Your task to perform on an android device: Open settings Image 0: 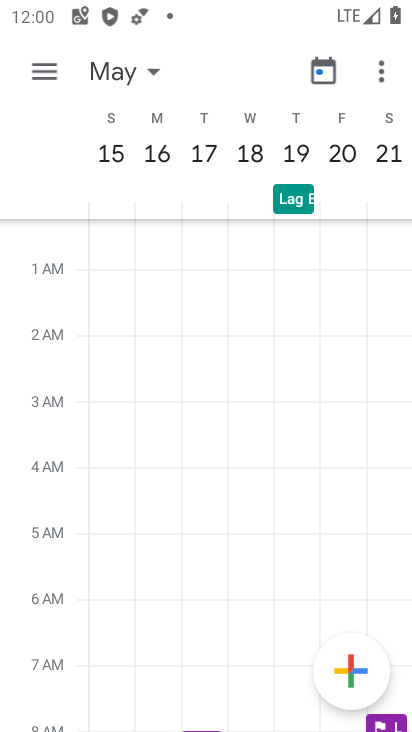
Step 0: press back button
Your task to perform on an android device: Open settings Image 1: 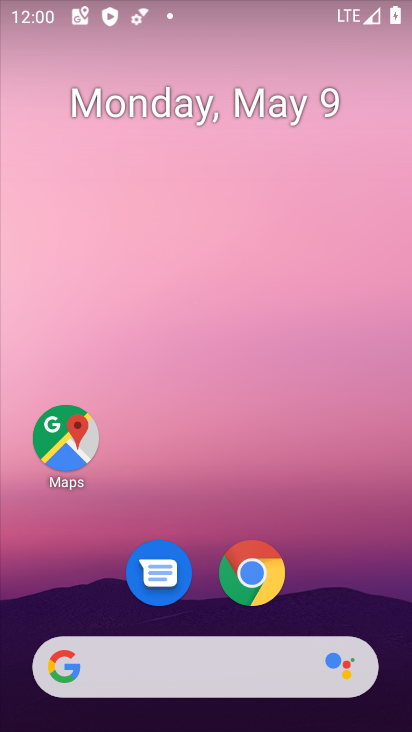
Step 1: drag from (304, 574) to (218, 0)
Your task to perform on an android device: Open settings Image 2: 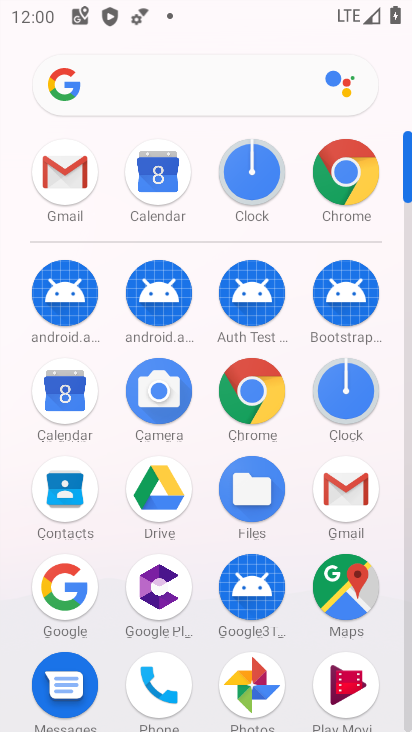
Step 2: drag from (11, 558) to (18, 229)
Your task to perform on an android device: Open settings Image 3: 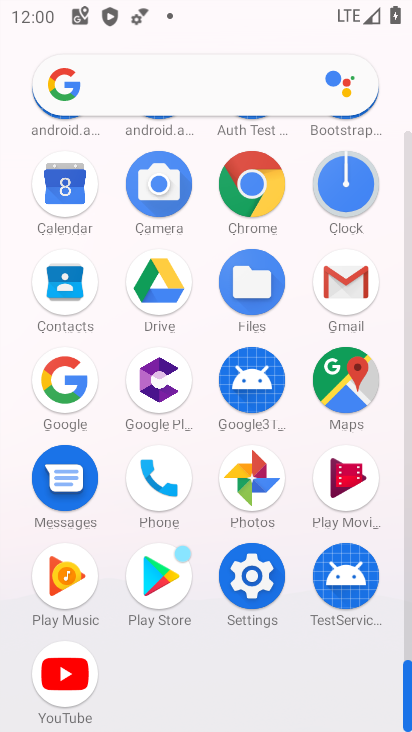
Step 3: click (252, 577)
Your task to perform on an android device: Open settings Image 4: 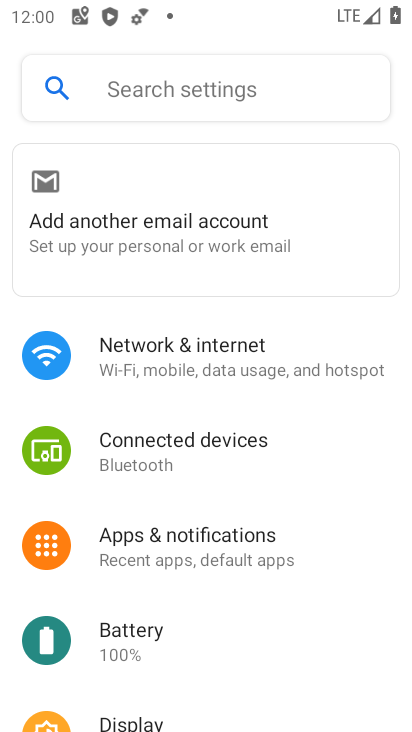
Step 4: task complete